Your task to perform on an android device: Search for usb-b on amazon.com, select the first entry, and add it to the cart. Image 0: 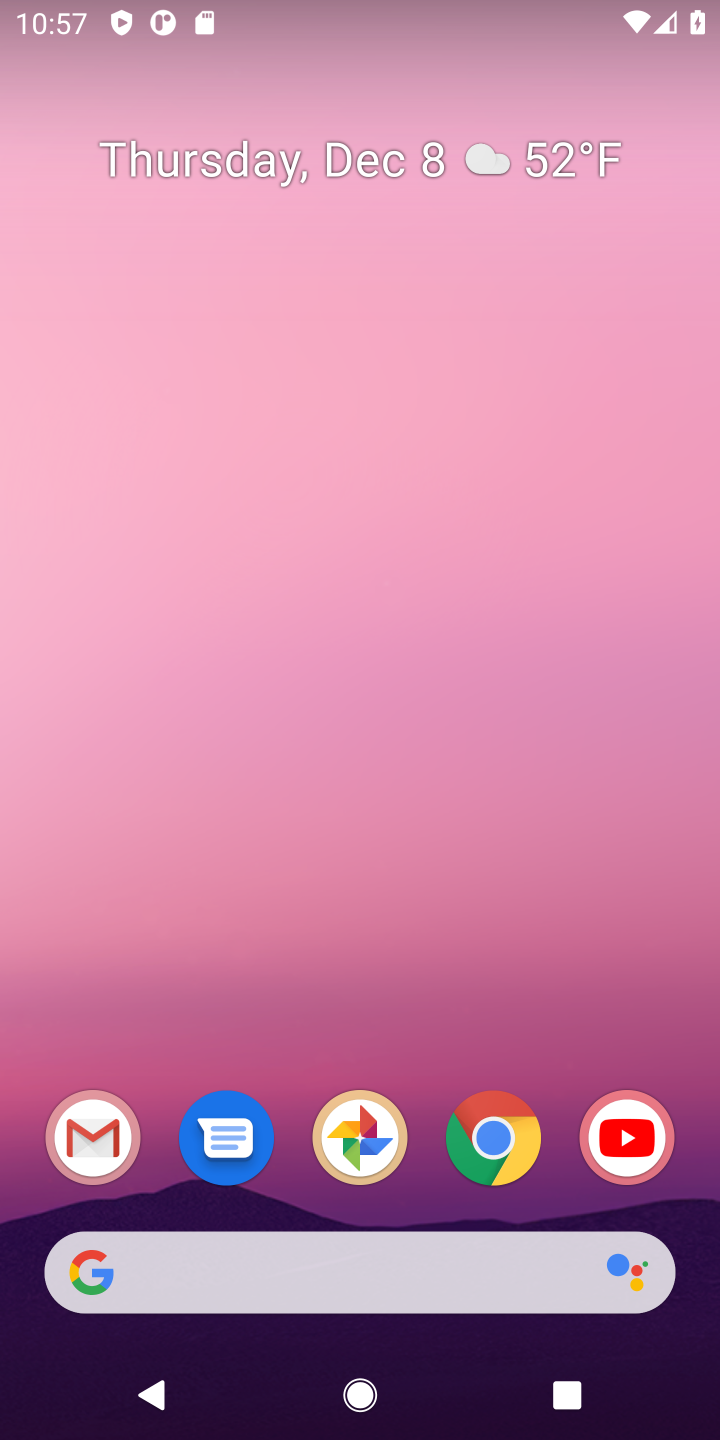
Step 0: click (479, 1135)
Your task to perform on an android device: Search for usb-b on amazon.com, select the first entry, and add it to the cart. Image 1: 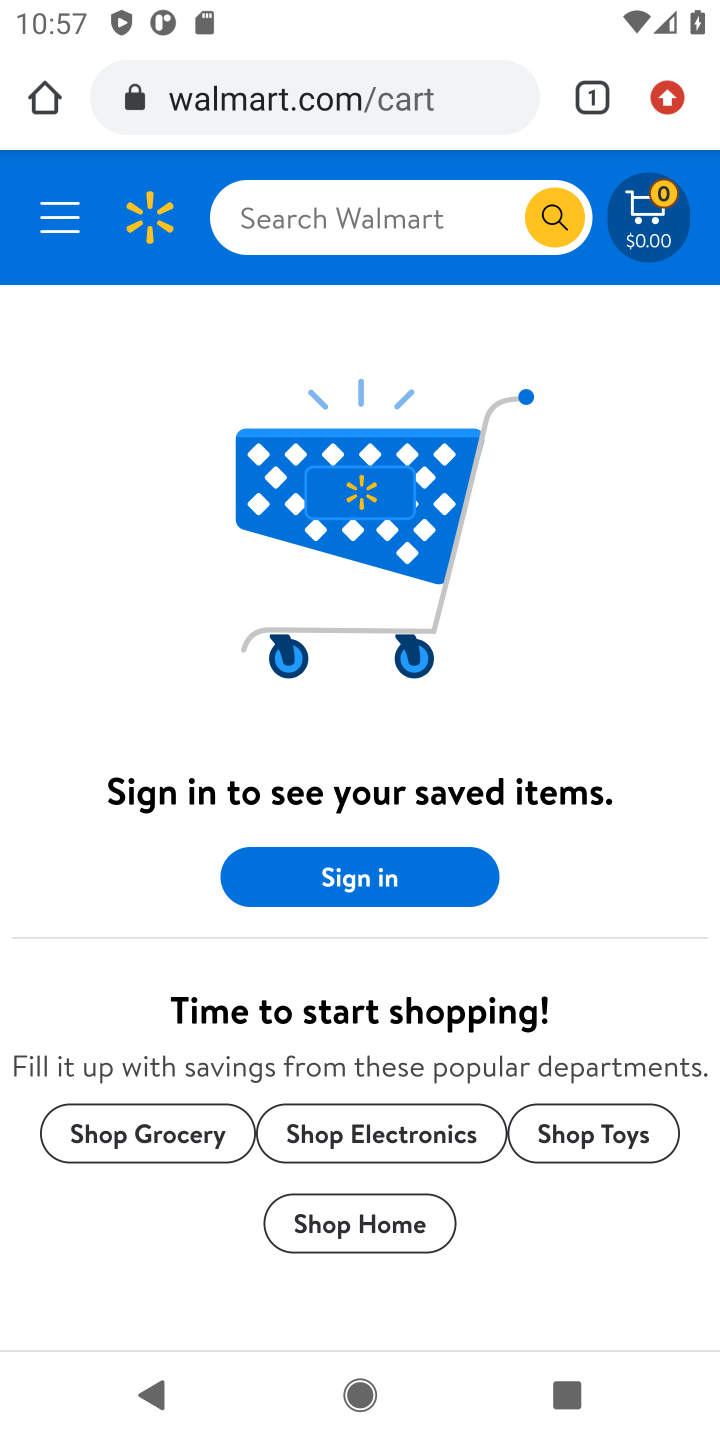
Step 1: click (448, 108)
Your task to perform on an android device: Search for usb-b on amazon.com, select the first entry, and add it to the cart. Image 2: 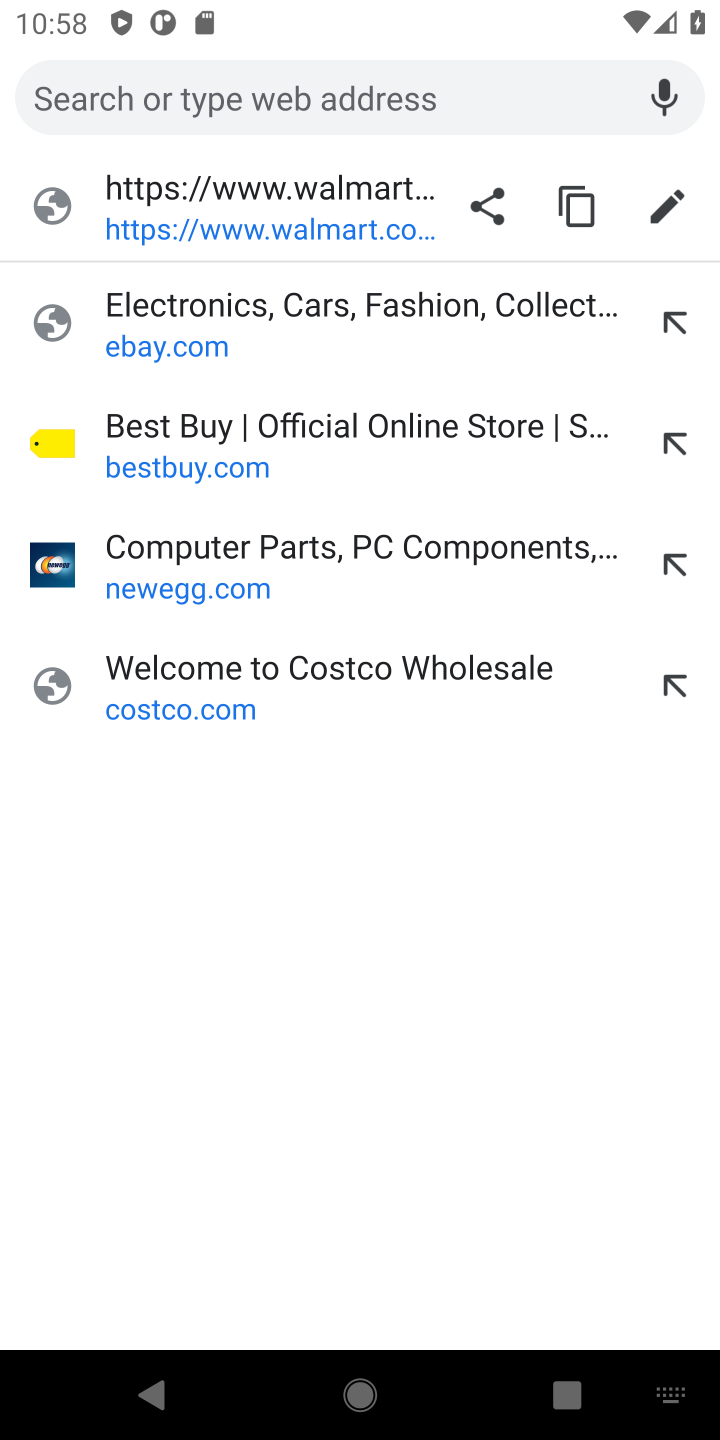
Step 2: type "amazon.com"
Your task to perform on an android device: Search for usb-b on amazon.com, select the first entry, and add it to the cart. Image 3: 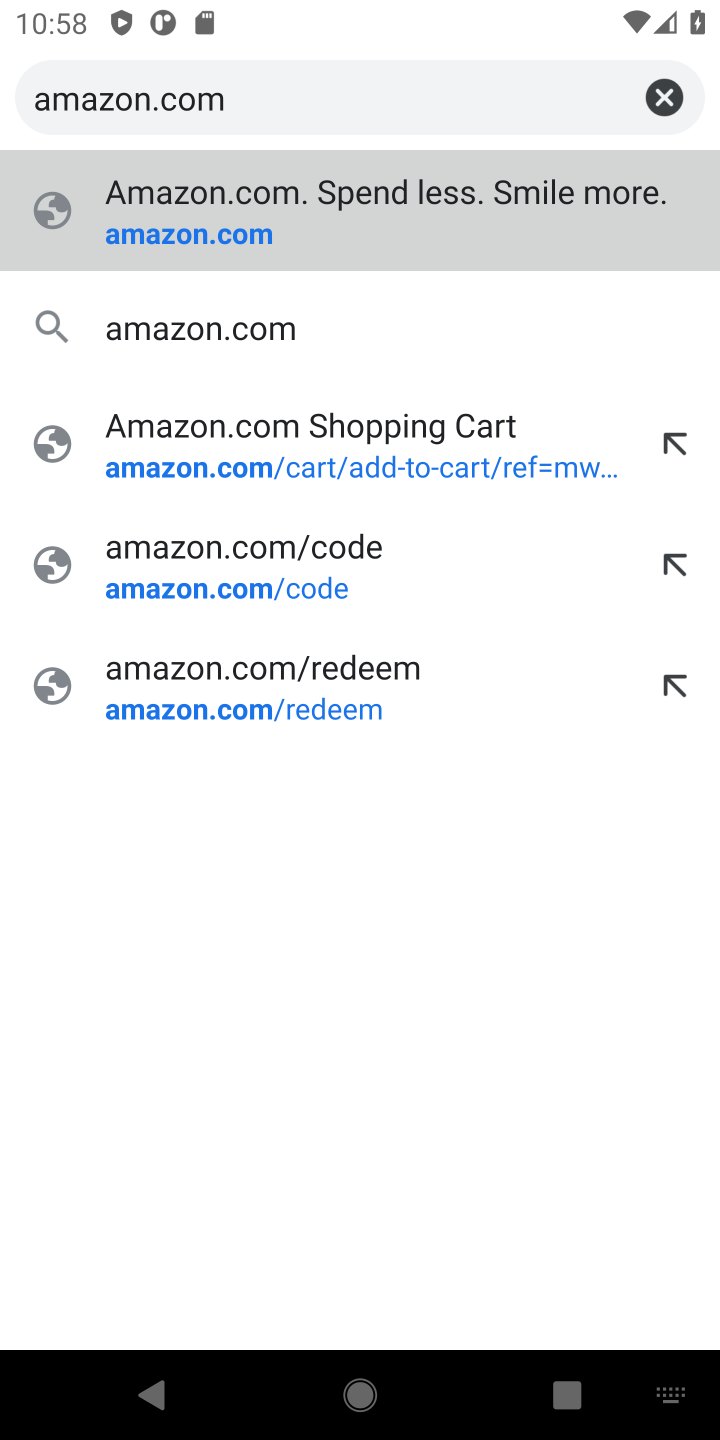
Step 3: press enter
Your task to perform on an android device: Search for usb-b on amazon.com, select the first entry, and add it to the cart. Image 4: 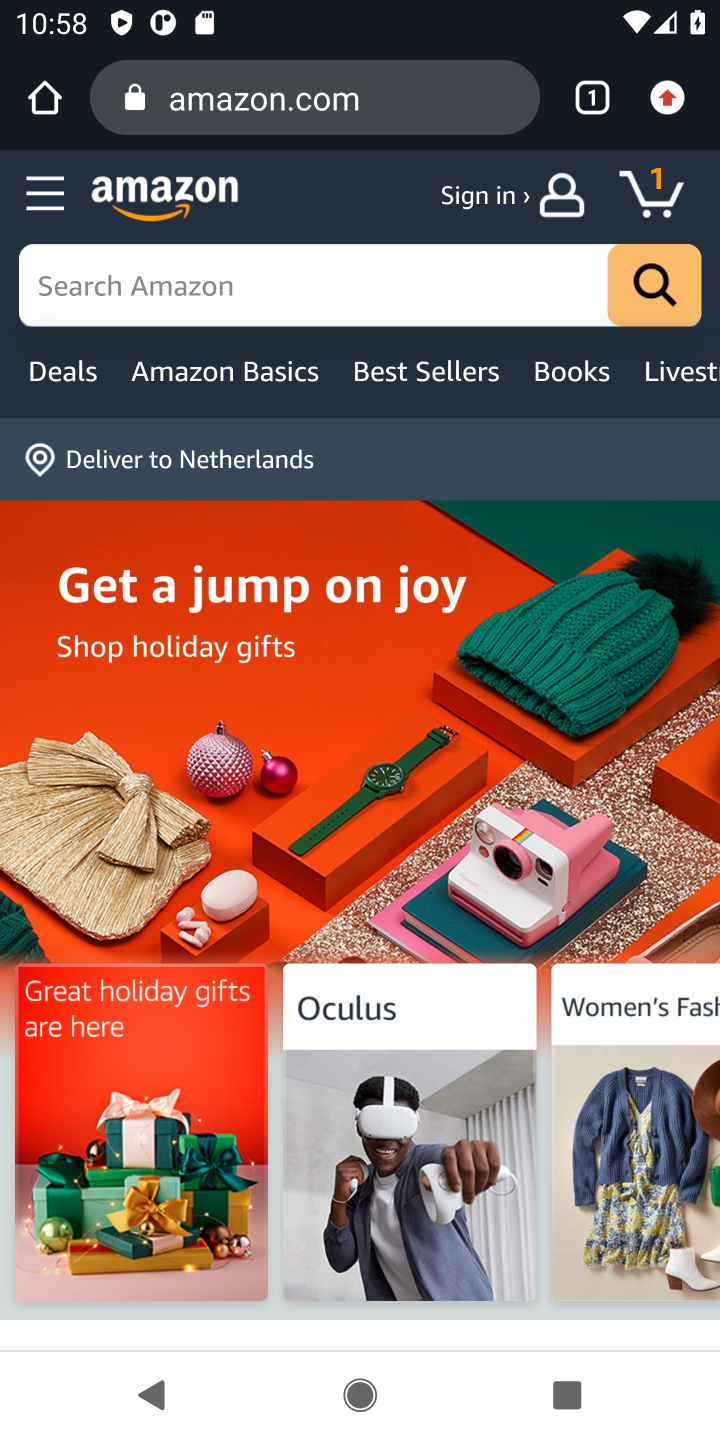
Step 4: click (355, 268)
Your task to perform on an android device: Search for usb-b on amazon.com, select the first entry, and add it to the cart. Image 5: 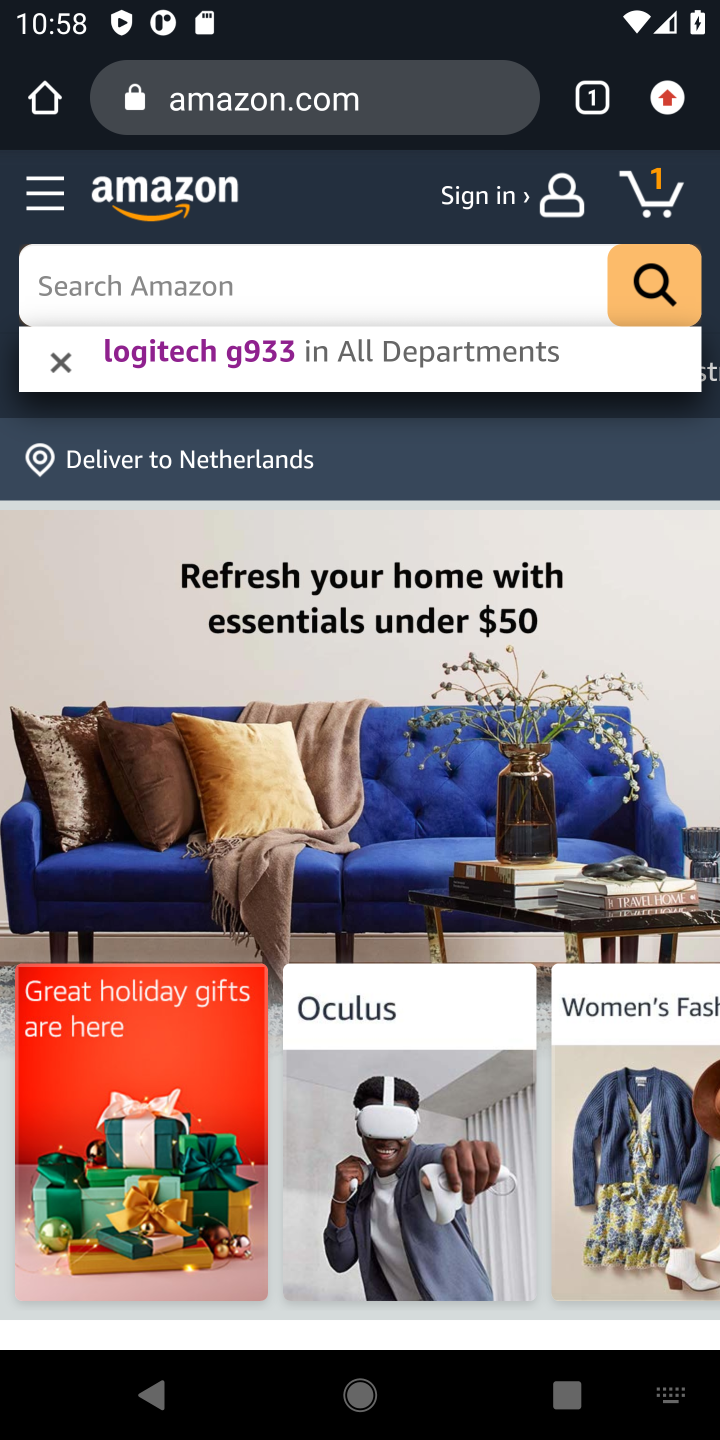
Step 5: press enter
Your task to perform on an android device: Search for usb-b on amazon.com, select the first entry, and add it to the cart. Image 6: 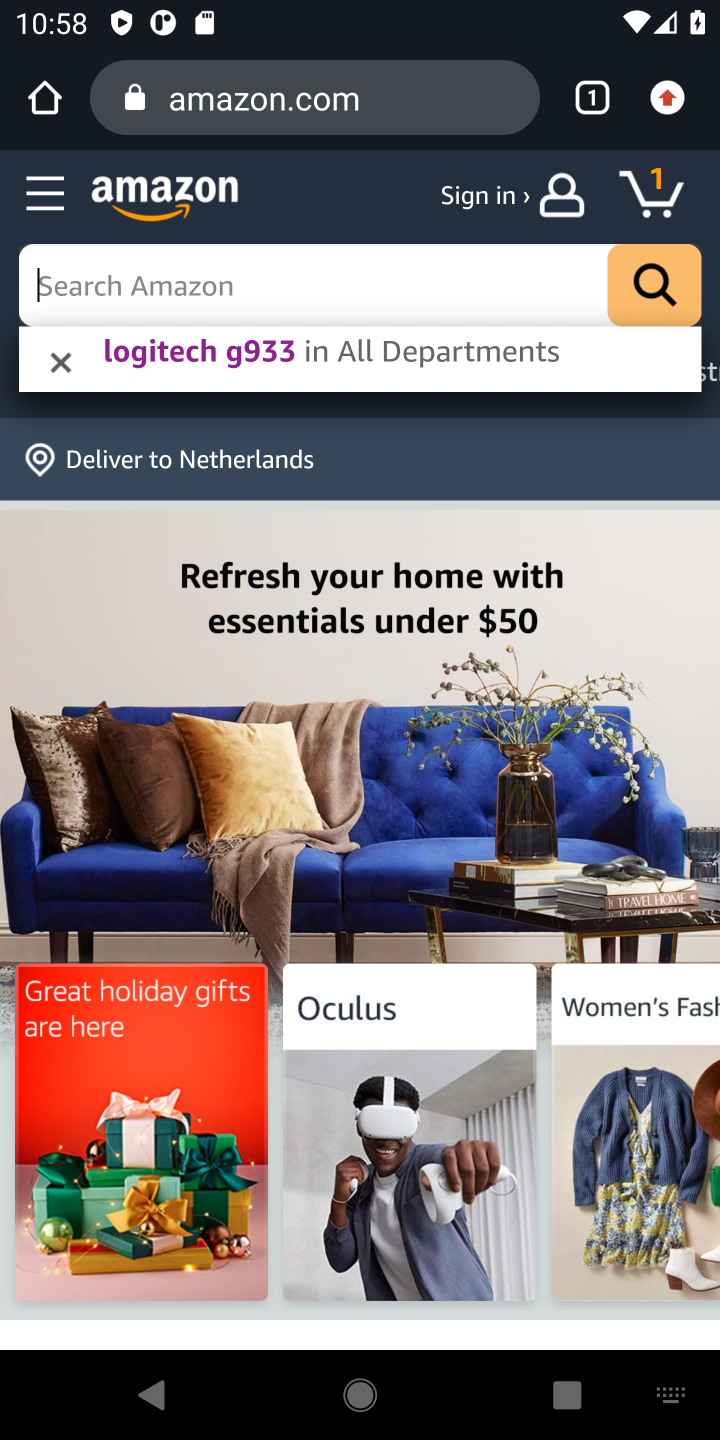
Step 6: type "usb-b"
Your task to perform on an android device: Search for usb-b on amazon.com, select the first entry, and add it to the cart. Image 7: 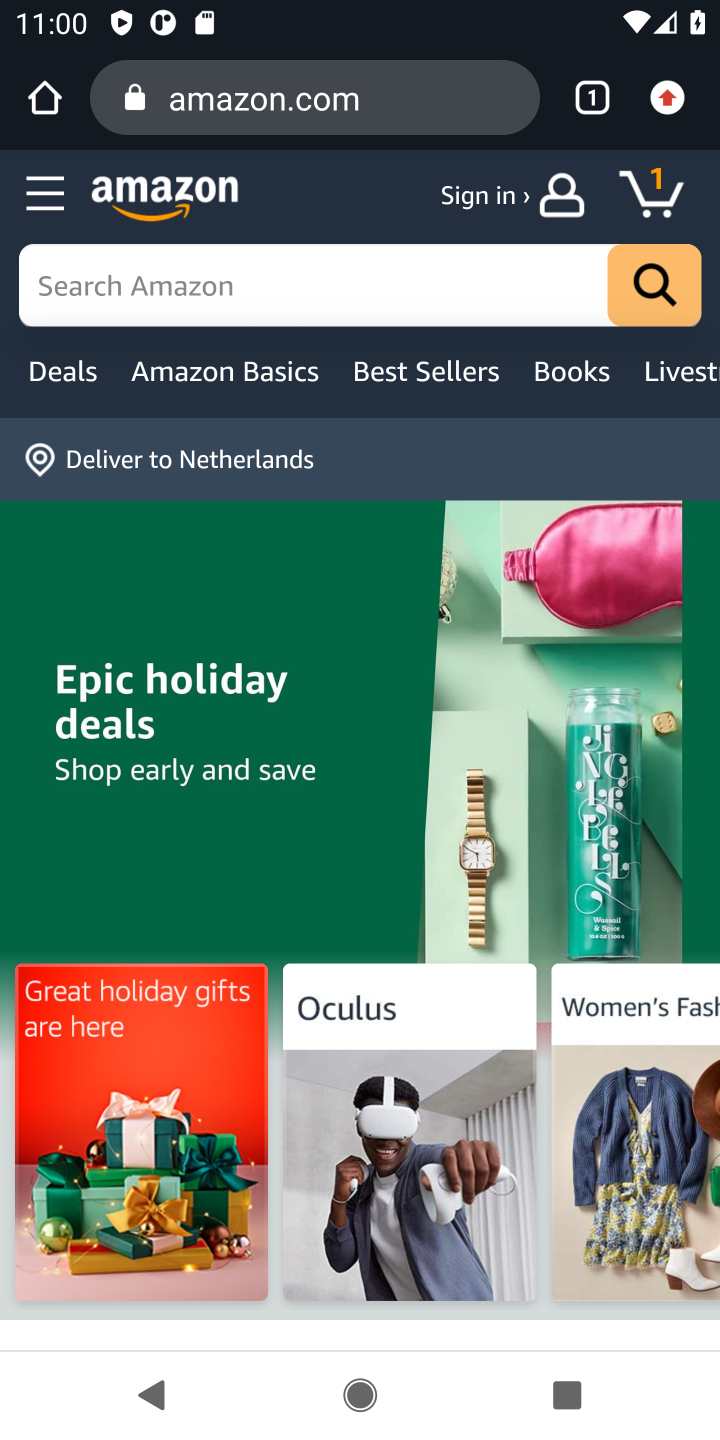
Step 7: click (358, 295)
Your task to perform on an android device: Search for usb-b on amazon.com, select the first entry, and add it to the cart. Image 8: 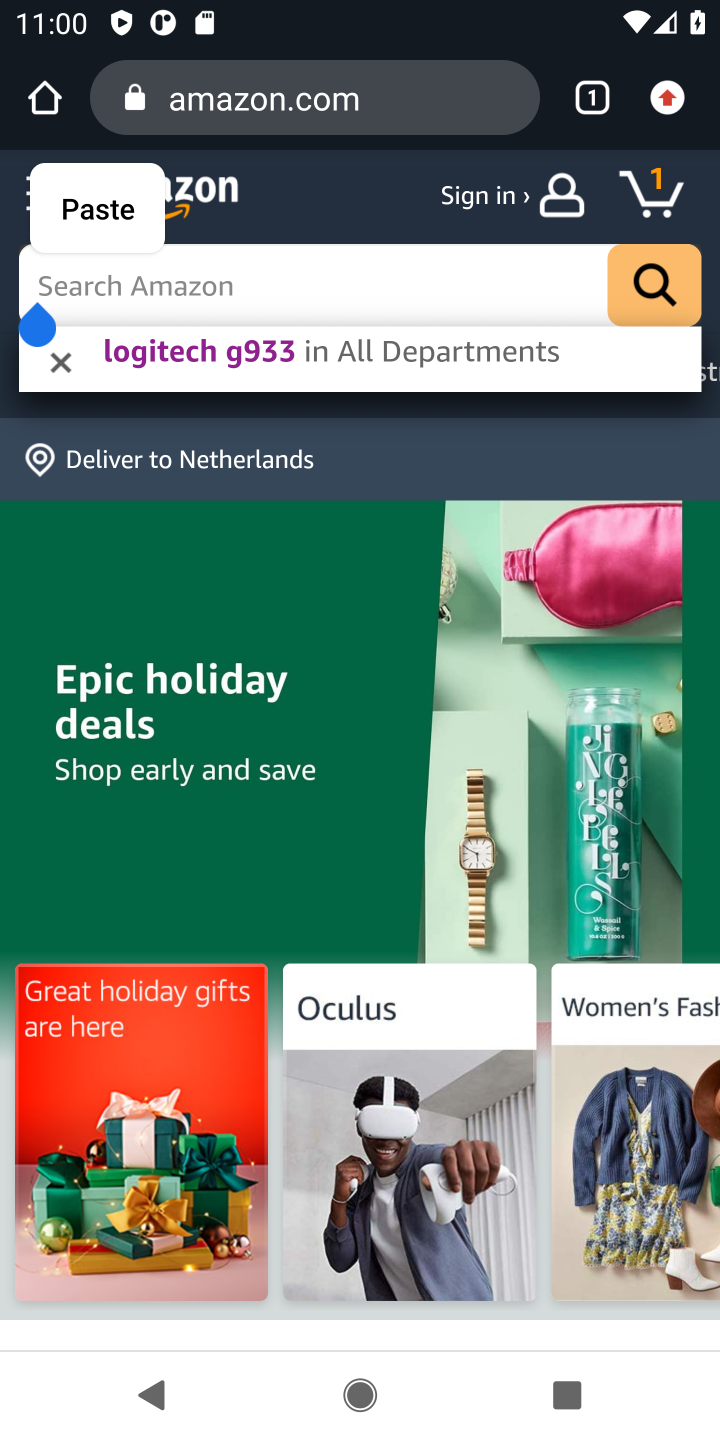
Step 8: type "usb-b"
Your task to perform on an android device: Search for usb-b on amazon.com, select the first entry, and add it to the cart. Image 9: 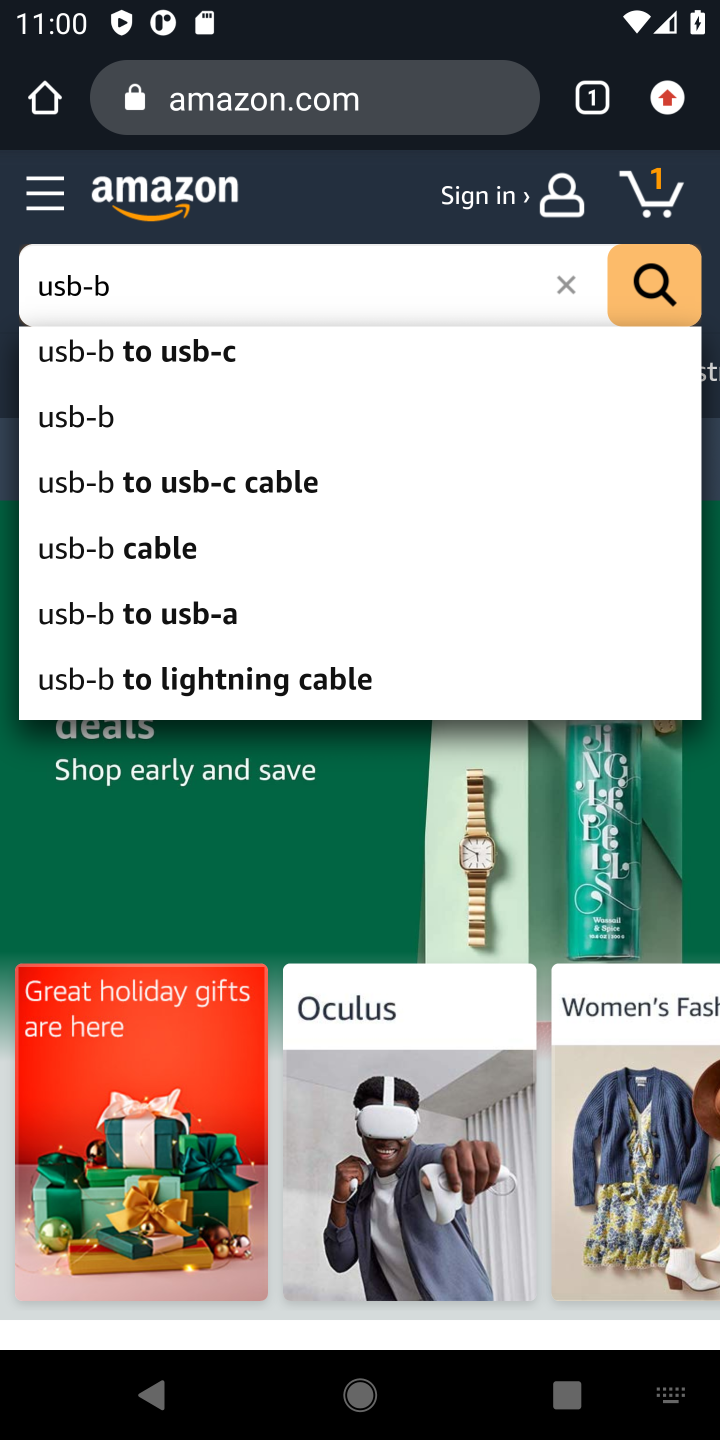
Step 9: click (87, 420)
Your task to perform on an android device: Search for usb-b on amazon.com, select the first entry, and add it to the cart. Image 10: 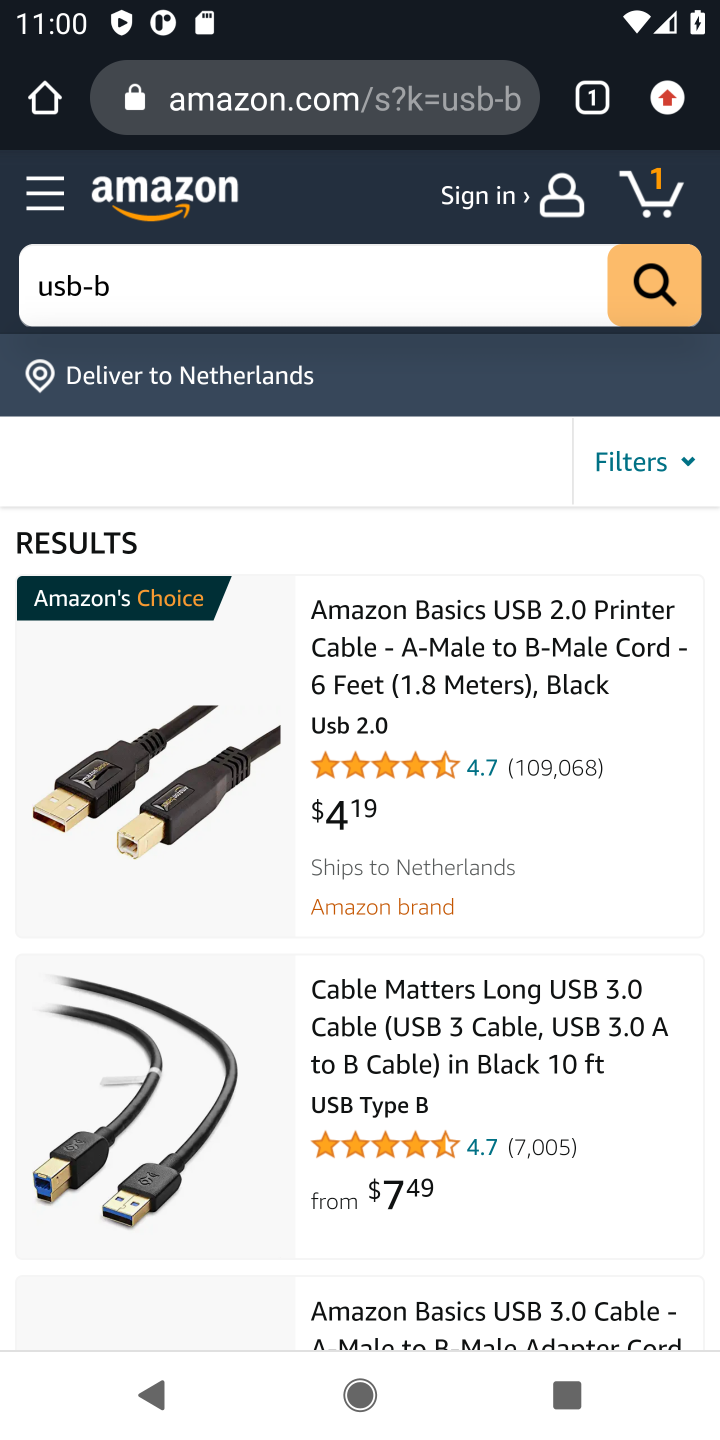
Step 10: task complete